Your task to perform on an android device: star an email in the gmail app Image 0: 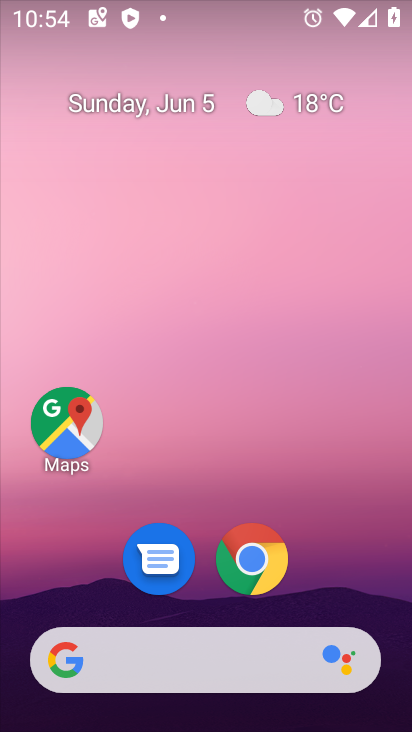
Step 0: drag from (384, 682) to (274, 266)
Your task to perform on an android device: star an email in the gmail app Image 1: 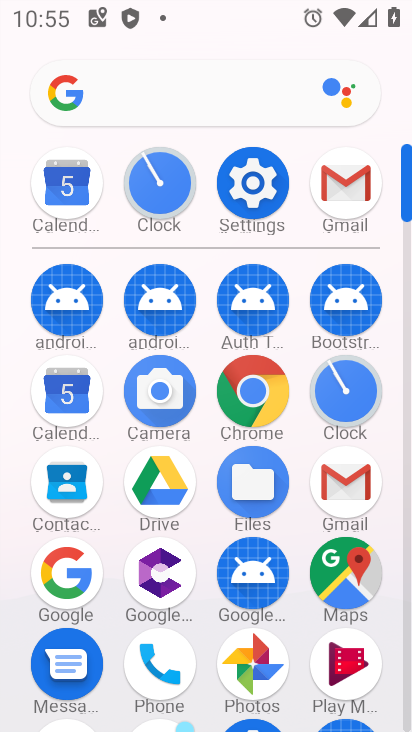
Step 1: click (344, 484)
Your task to perform on an android device: star an email in the gmail app Image 2: 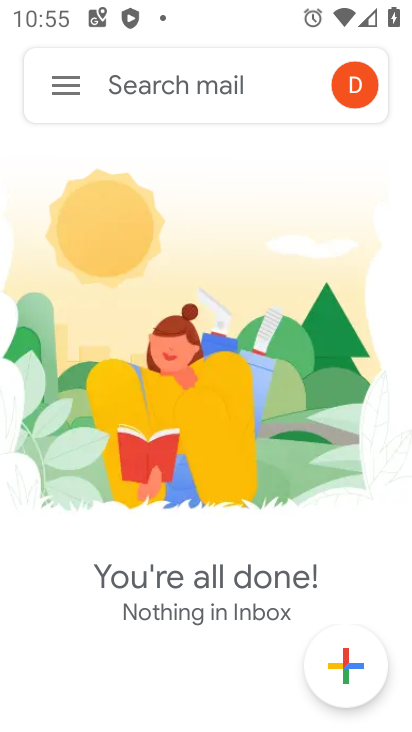
Step 2: click (69, 91)
Your task to perform on an android device: star an email in the gmail app Image 3: 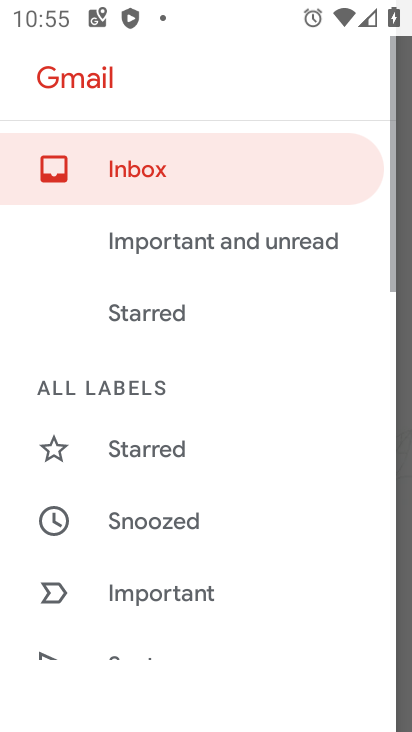
Step 3: click (102, 154)
Your task to perform on an android device: star an email in the gmail app Image 4: 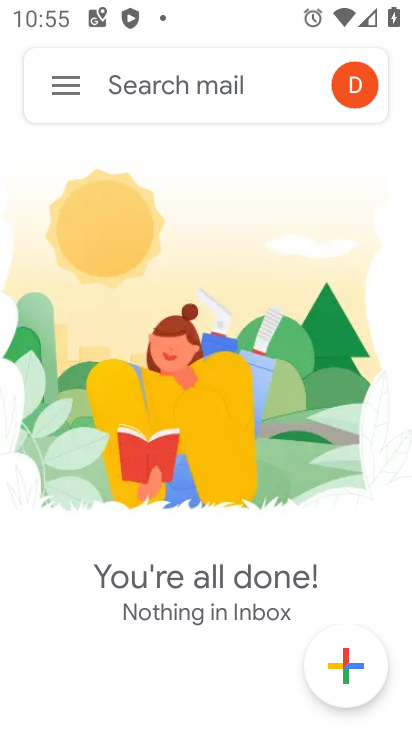
Step 4: task complete